Your task to perform on an android device: change notification settings in the gmail app Image 0: 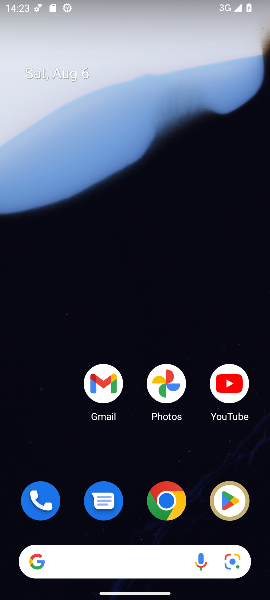
Step 0: press home button
Your task to perform on an android device: change notification settings in the gmail app Image 1: 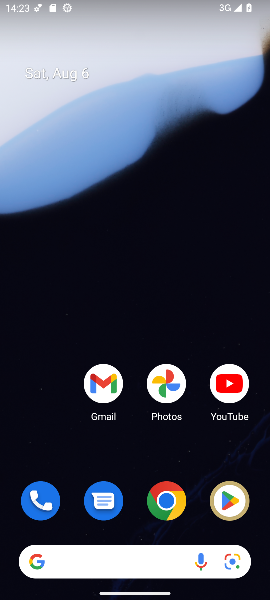
Step 1: click (93, 384)
Your task to perform on an android device: change notification settings in the gmail app Image 2: 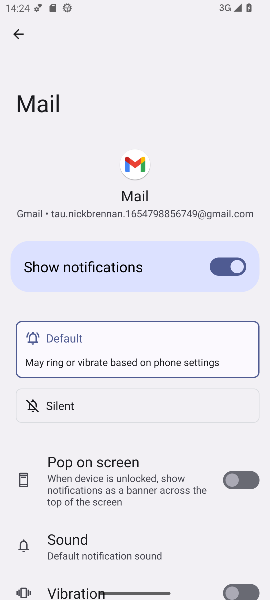
Step 2: click (240, 267)
Your task to perform on an android device: change notification settings in the gmail app Image 3: 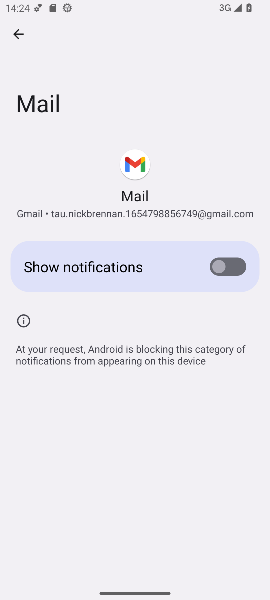
Step 3: task complete